Your task to perform on an android device: turn pop-ups on in chrome Image 0: 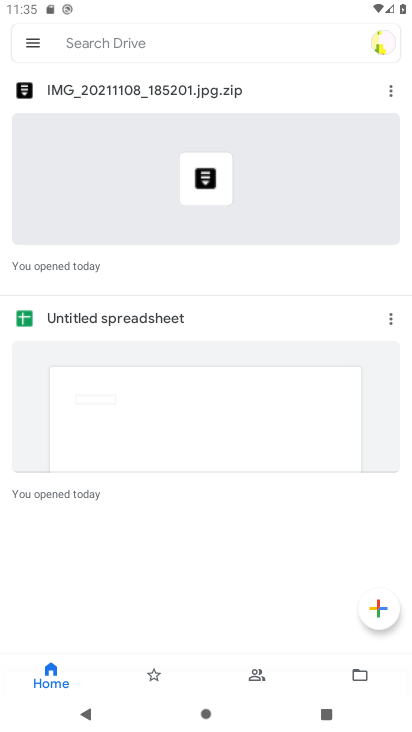
Step 0: press home button
Your task to perform on an android device: turn pop-ups on in chrome Image 1: 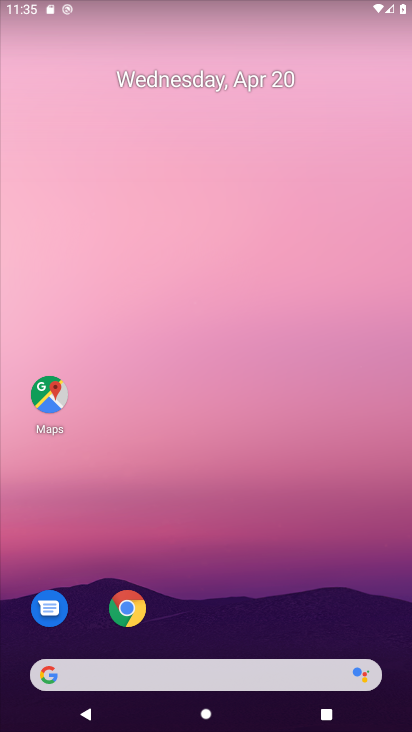
Step 1: click (123, 608)
Your task to perform on an android device: turn pop-ups on in chrome Image 2: 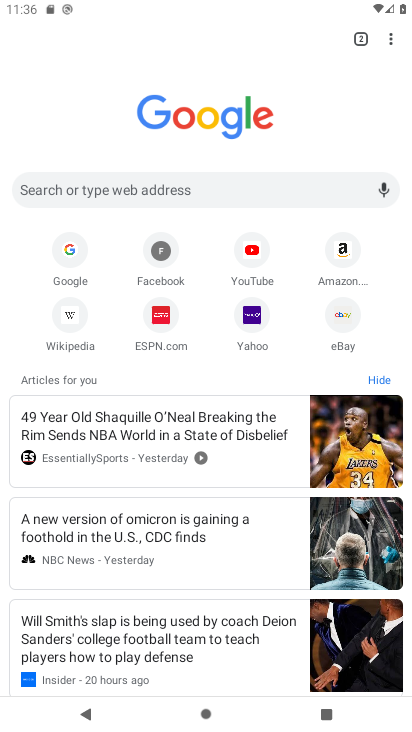
Step 2: click (393, 40)
Your task to perform on an android device: turn pop-ups on in chrome Image 3: 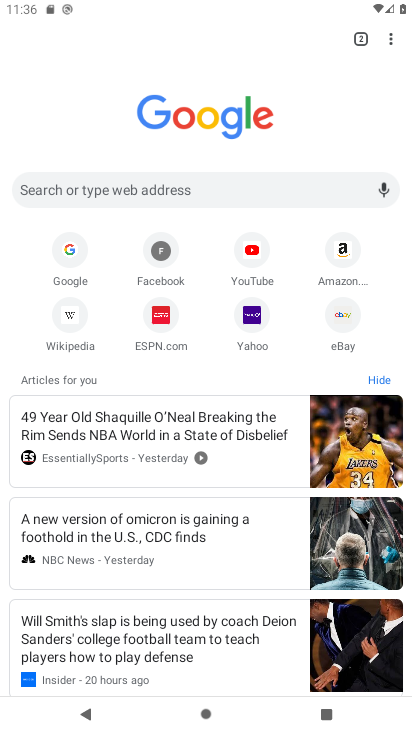
Step 3: click (389, 35)
Your task to perform on an android device: turn pop-ups on in chrome Image 4: 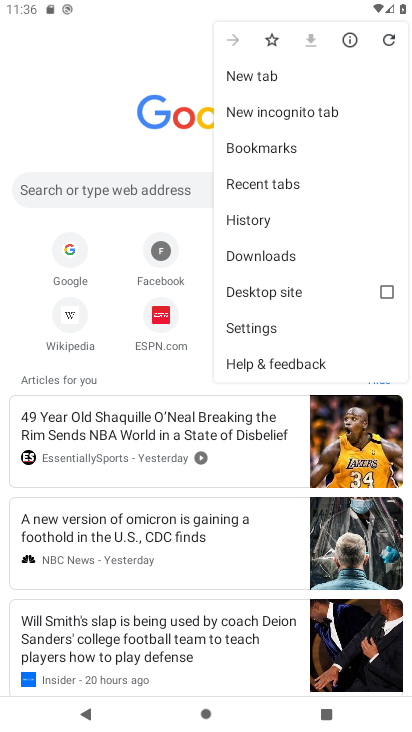
Step 4: click (252, 330)
Your task to perform on an android device: turn pop-ups on in chrome Image 5: 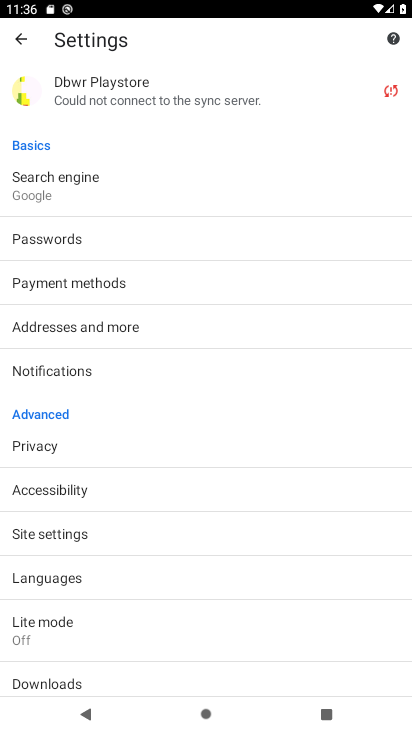
Step 5: drag from (139, 645) to (159, 377)
Your task to perform on an android device: turn pop-ups on in chrome Image 6: 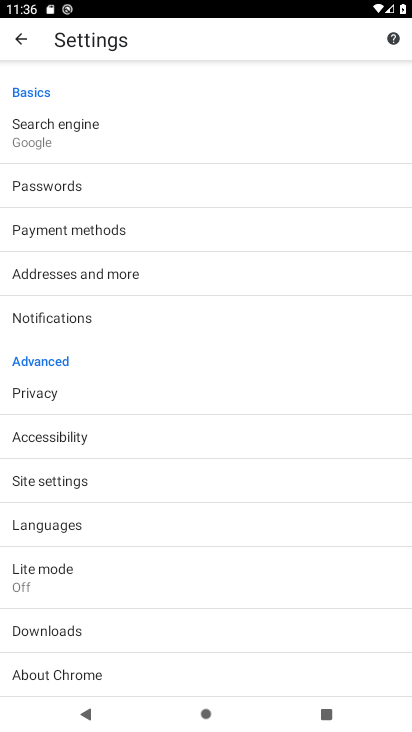
Step 6: click (99, 470)
Your task to perform on an android device: turn pop-ups on in chrome Image 7: 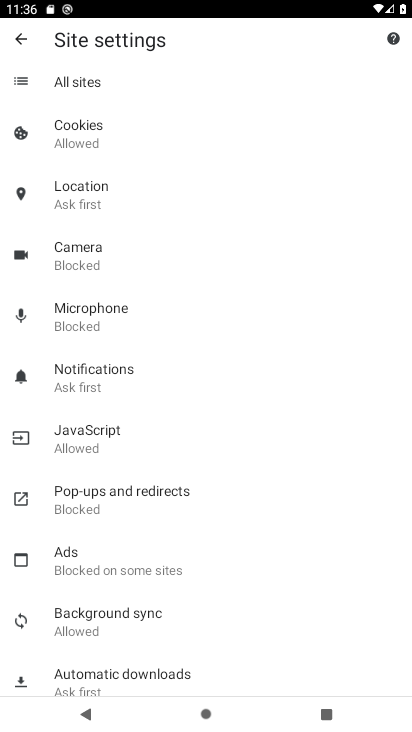
Step 7: drag from (166, 612) to (182, 476)
Your task to perform on an android device: turn pop-ups on in chrome Image 8: 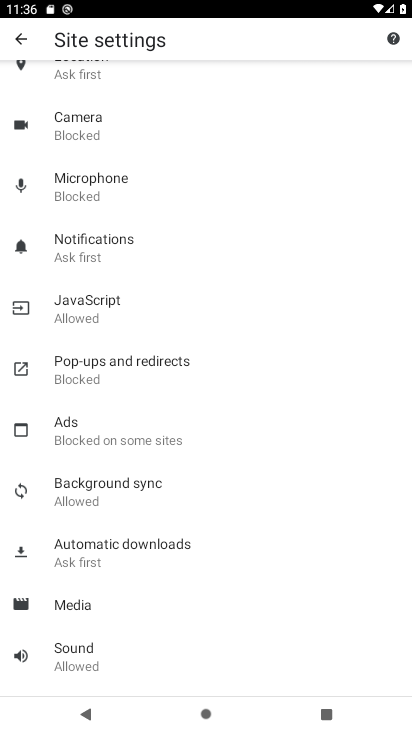
Step 8: click (128, 372)
Your task to perform on an android device: turn pop-ups on in chrome Image 9: 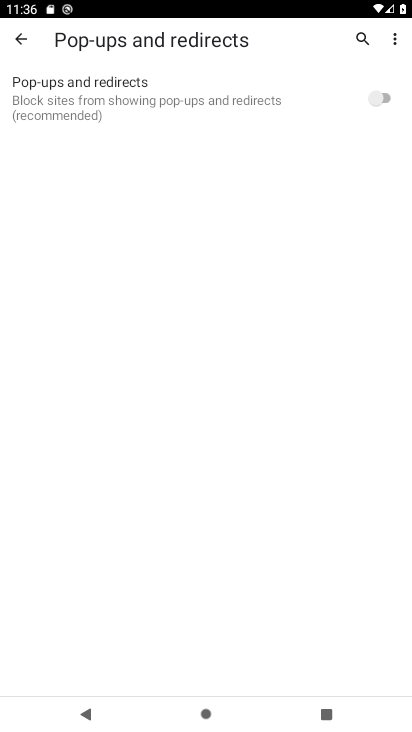
Step 9: click (385, 96)
Your task to perform on an android device: turn pop-ups on in chrome Image 10: 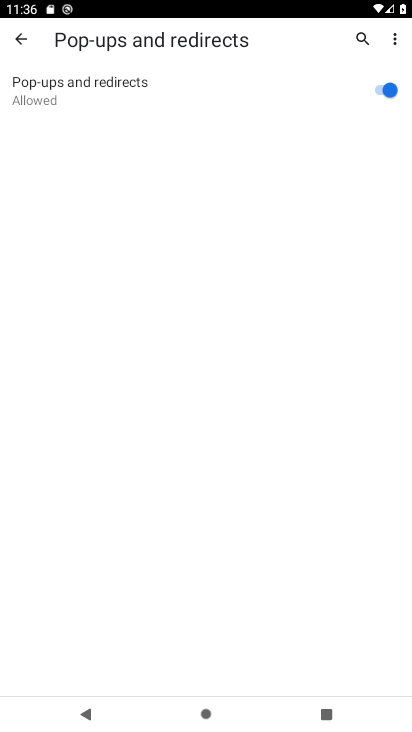
Step 10: task complete